Your task to perform on an android device: find photos in the google photos app Image 0: 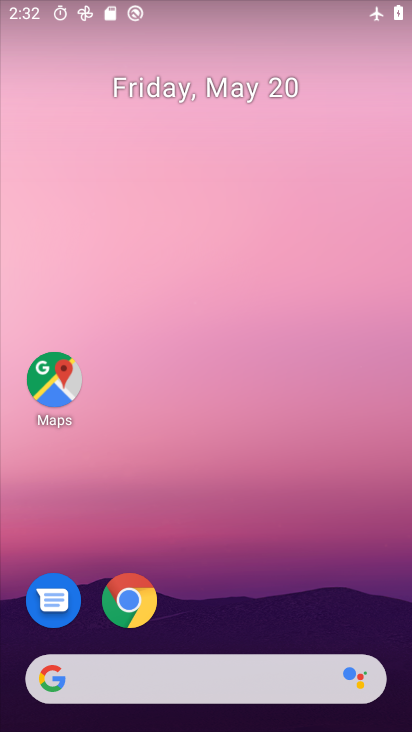
Step 0: drag from (243, 461) to (172, 2)
Your task to perform on an android device: find photos in the google photos app Image 1: 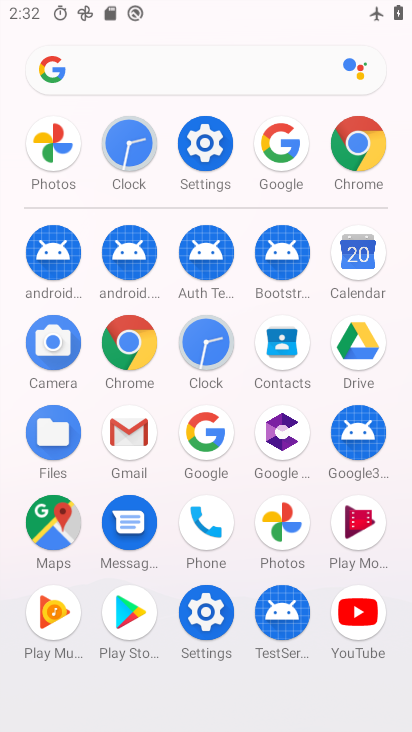
Step 1: click (275, 517)
Your task to perform on an android device: find photos in the google photos app Image 2: 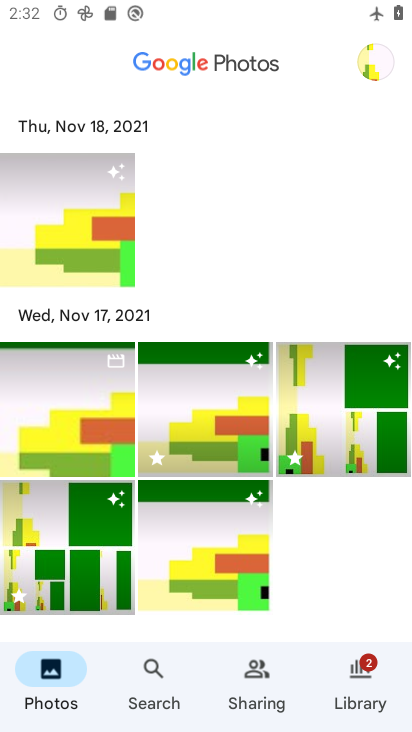
Step 2: task complete